Your task to perform on an android device: turn off translation in the chrome app Image 0: 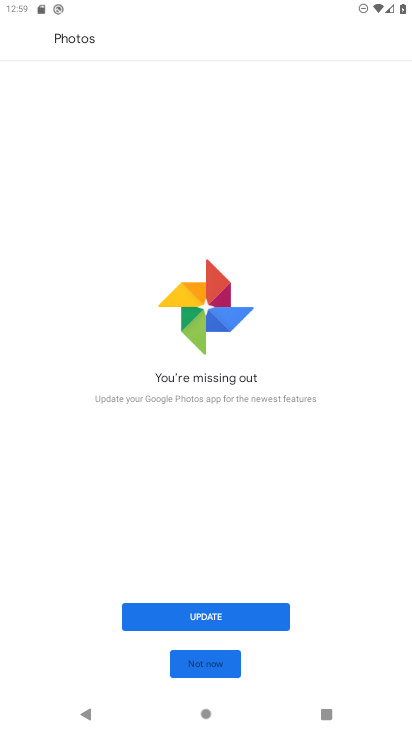
Step 0: press home button
Your task to perform on an android device: turn off translation in the chrome app Image 1: 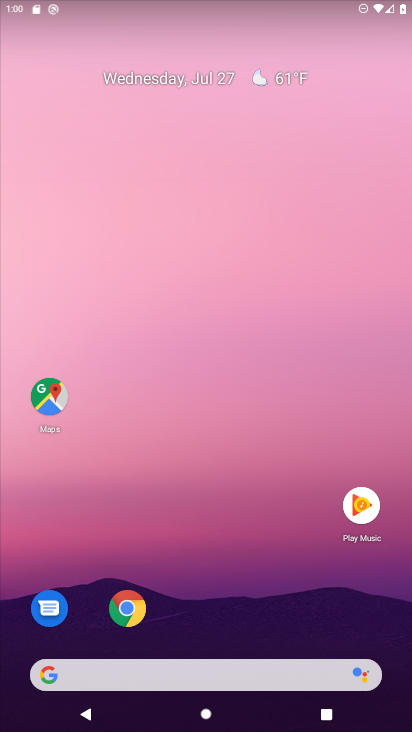
Step 1: drag from (257, 616) to (282, 192)
Your task to perform on an android device: turn off translation in the chrome app Image 2: 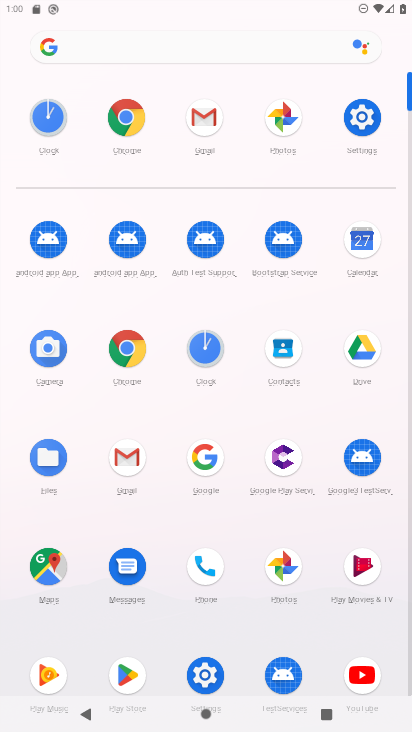
Step 2: click (130, 347)
Your task to perform on an android device: turn off translation in the chrome app Image 3: 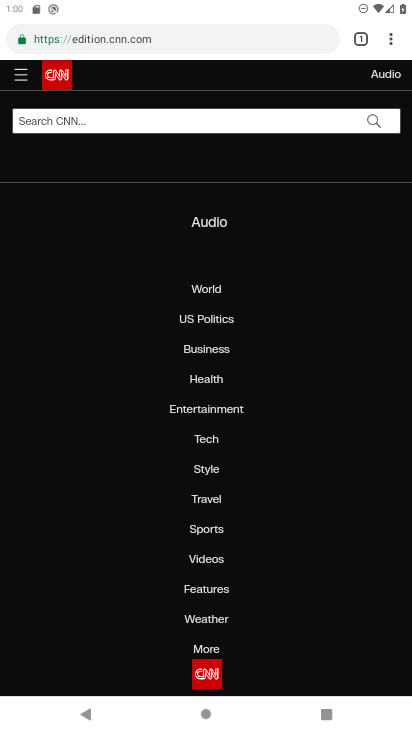
Step 3: click (391, 37)
Your task to perform on an android device: turn off translation in the chrome app Image 4: 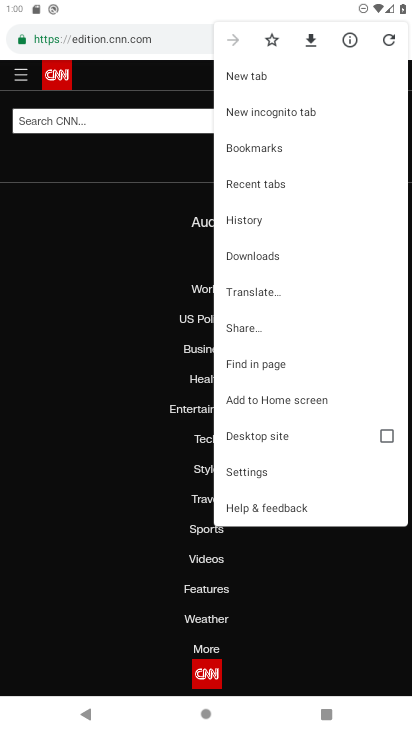
Step 4: click (322, 473)
Your task to perform on an android device: turn off translation in the chrome app Image 5: 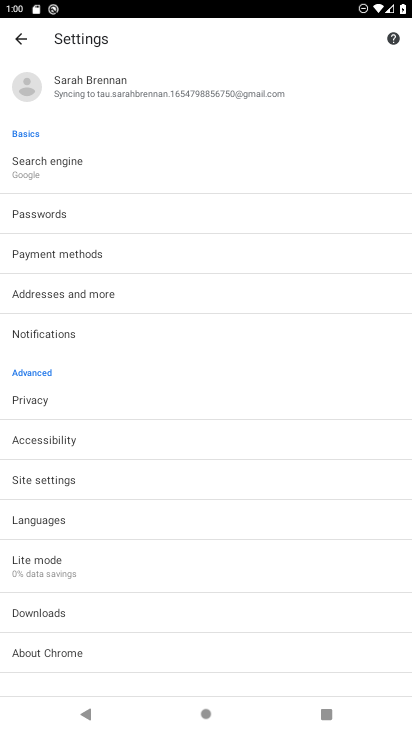
Step 5: drag from (281, 548) to (283, 453)
Your task to perform on an android device: turn off translation in the chrome app Image 6: 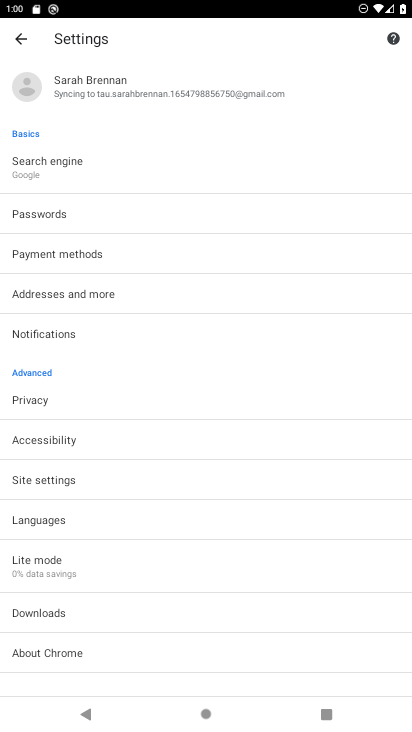
Step 6: click (268, 515)
Your task to perform on an android device: turn off translation in the chrome app Image 7: 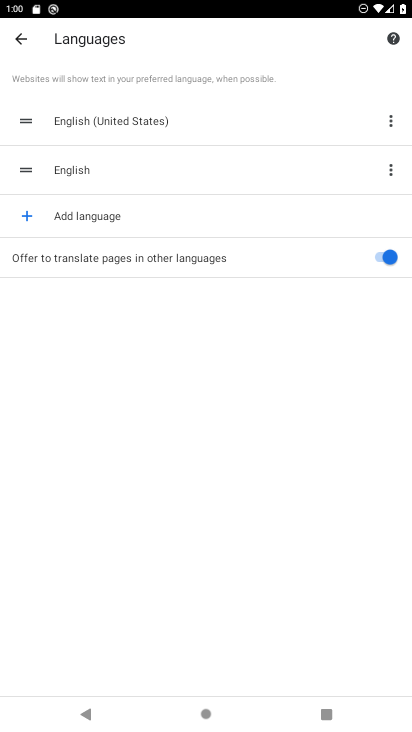
Step 7: click (384, 254)
Your task to perform on an android device: turn off translation in the chrome app Image 8: 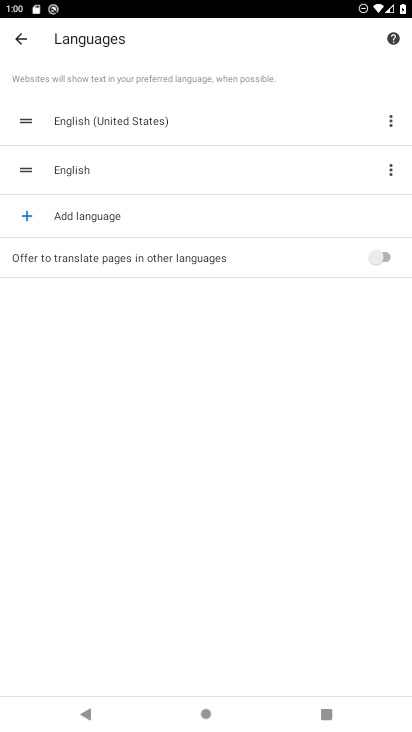
Step 8: task complete